Your task to perform on an android device: turn off airplane mode Image 0: 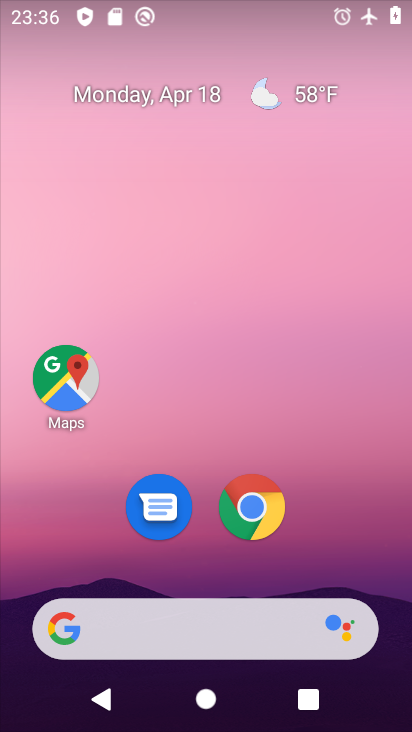
Step 0: drag from (231, 10) to (317, 579)
Your task to perform on an android device: turn off airplane mode Image 1: 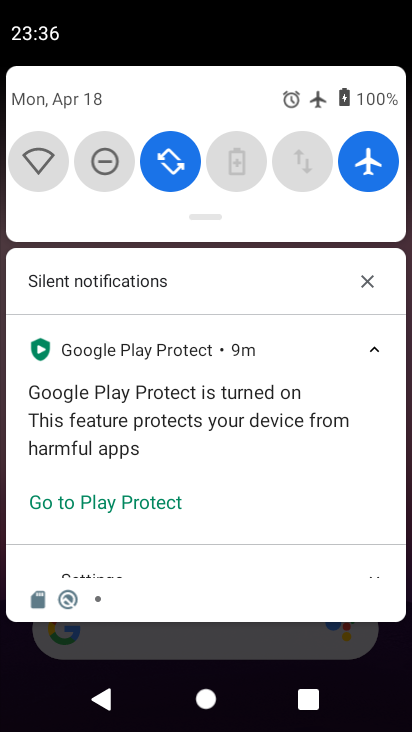
Step 1: drag from (246, 103) to (251, 514)
Your task to perform on an android device: turn off airplane mode Image 2: 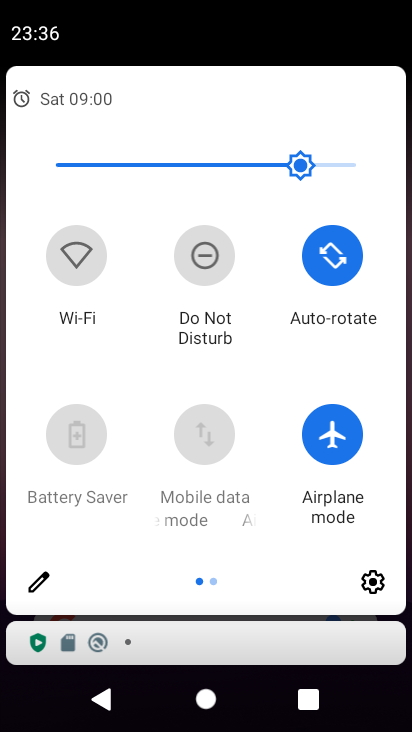
Step 2: click (333, 418)
Your task to perform on an android device: turn off airplane mode Image 3: 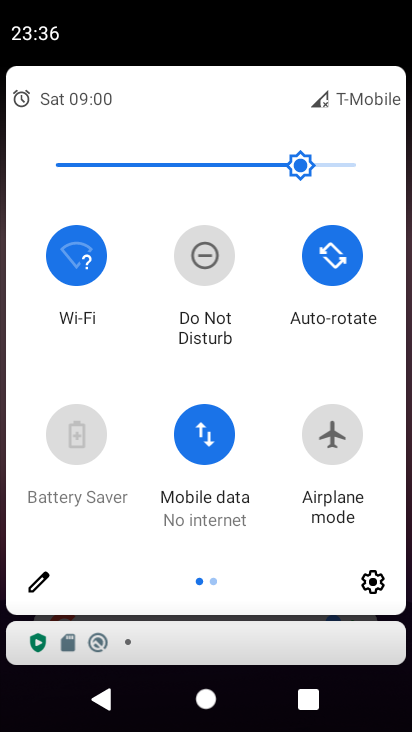
Step 3: task complete